Your task to perform on an android device: toggle data saver in the chrome app Image 0: 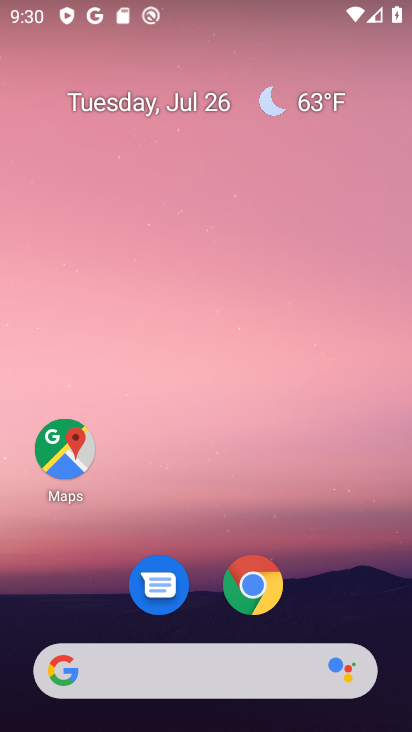
Step 0: click (259, 591)
Your task to perform on an android device: toggle data saver in the chrome app Image 1: 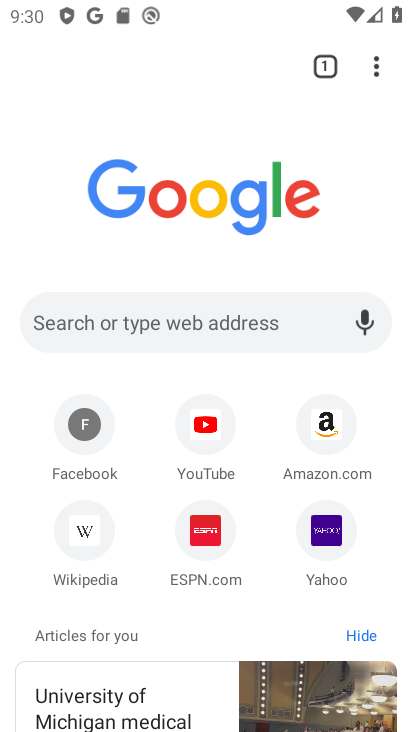
Step 1: click (378, 68)
Your task to perform on an android device: toggle data saver in the chrome app Image 2: 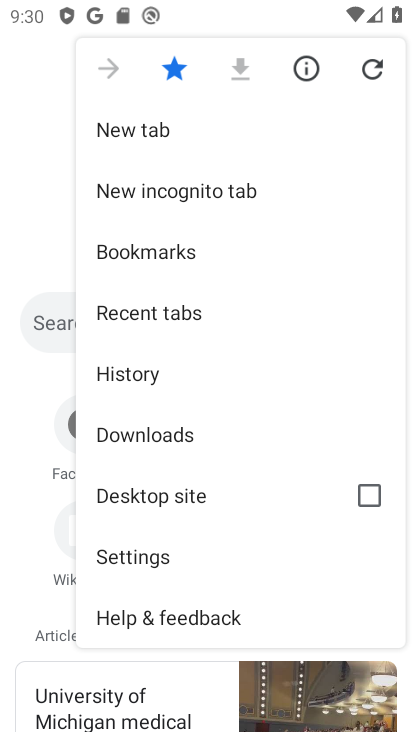
Step 2: click (157, 552)
Your task to perform on an android device: toggle data saver in the chrome app Image 3: 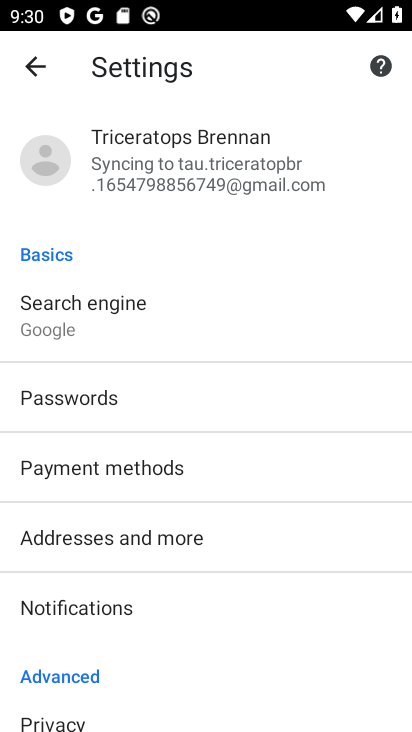
Step 3: drag from (235, 578) to (251, 194)
Your task to perform on an android device: toggle data saver in the chrome app Image 4: 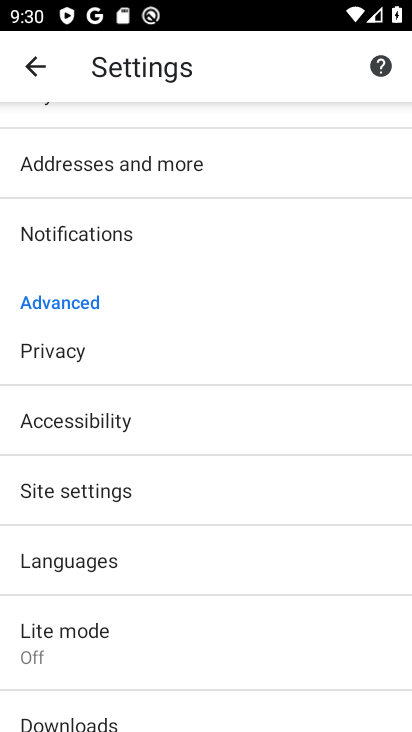
Step 4: click (210, 660)
Your task to perform on an android device: toggle data saver in the chrome app Image 5: 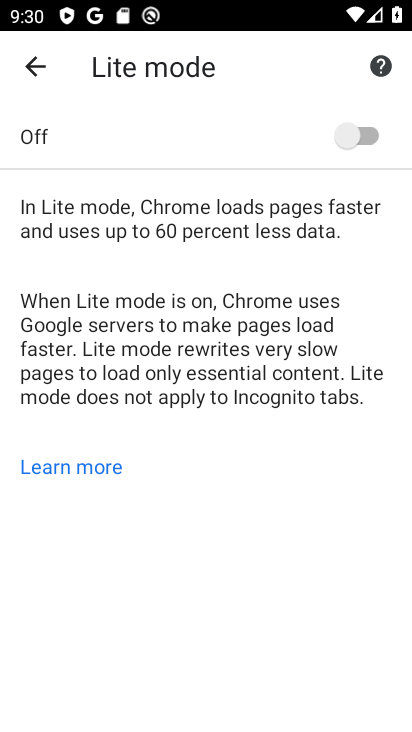
Step 5: click (355, 126)
Your task to perform on an android device: toggle data saver in the chrome app Image 6: 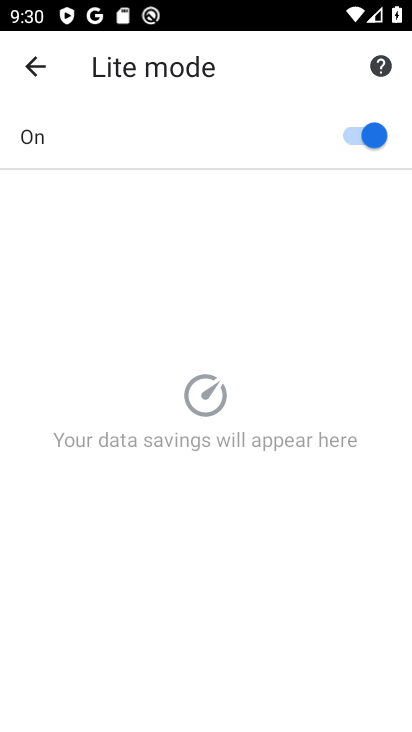
Step 6: task complete